Your task to perform on an android device: snooze an email in the gmail app Image 0: 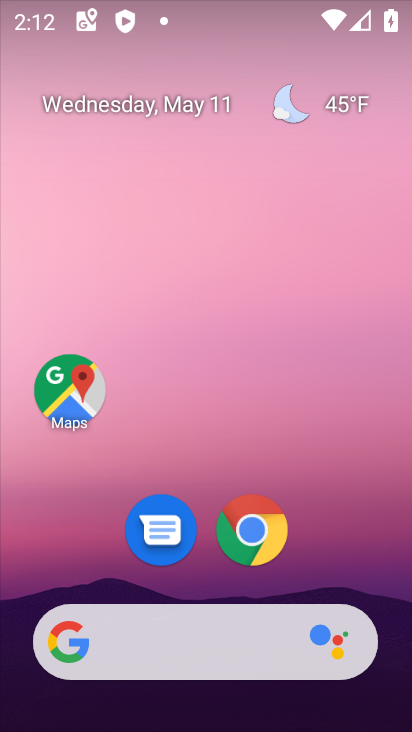
Step 0: drag from (270, 700) to (243, 146)
Your task to perform on an android device: snooze an email in the gmail app Image 1: 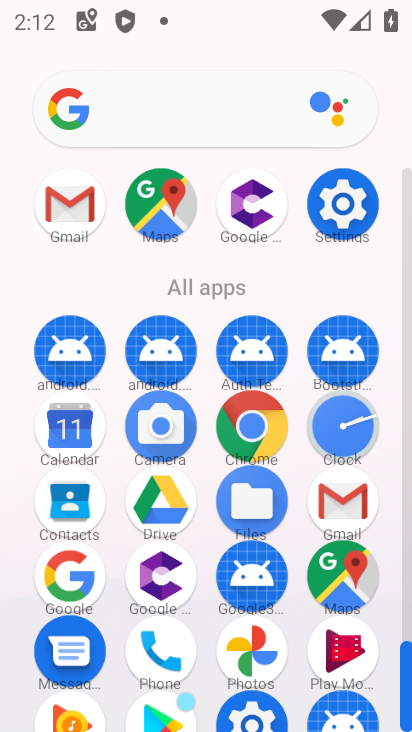
Step 1: click (341, 499)
Your task to perform on an android device: snooze an email in the gmail app Image 2: 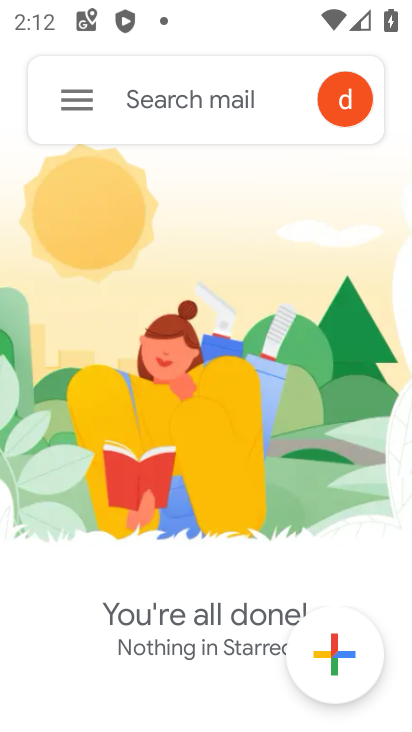
Step 2: click (66, 110)
Your task to perform on an android device: snooze an email in the gmail app Image 3: 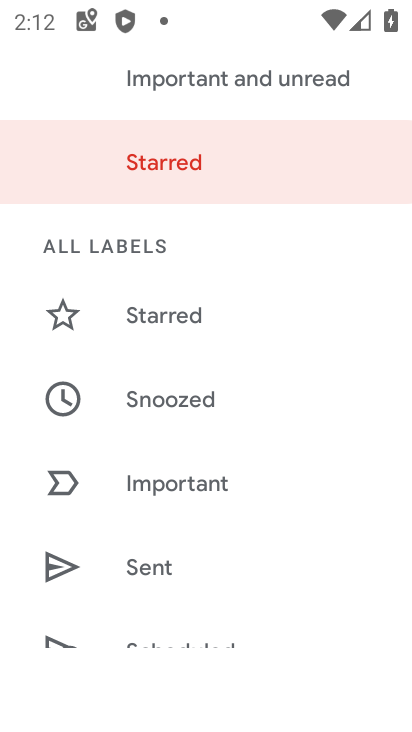
Step 3: drag from (206, 534) to (205, 133)
Your task to perform on an android device: snooze an email in the gmail app Image 4: 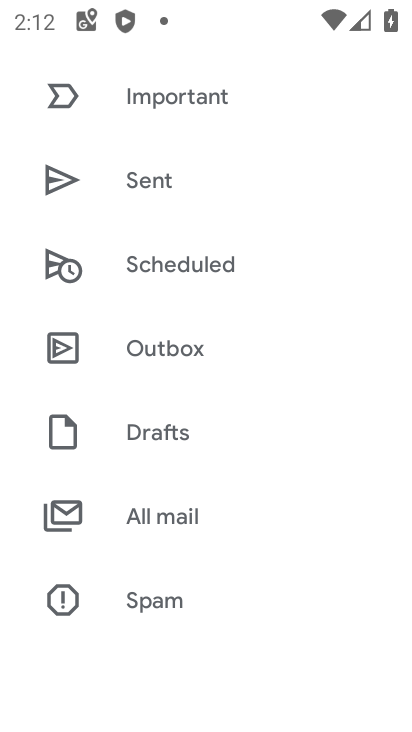
Step 4: drag from (253, 320) to (277, 16)
Your task to perform on an android device: snooze an email in the gmail app Image 5: 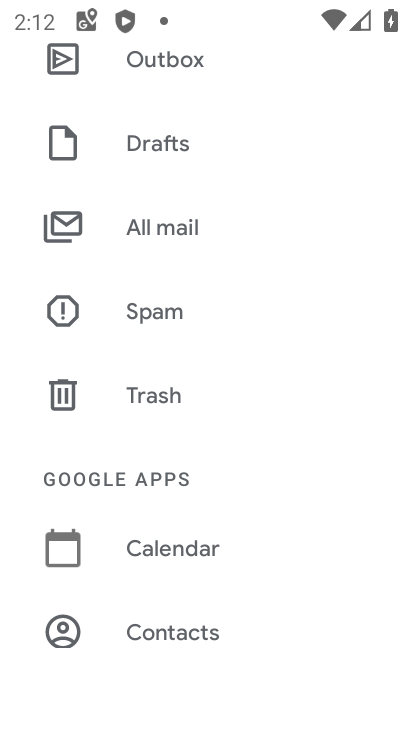
Step 5: click (152, 231)
Your task to perform on an android device: snooze an email in the gmail app Image 6: 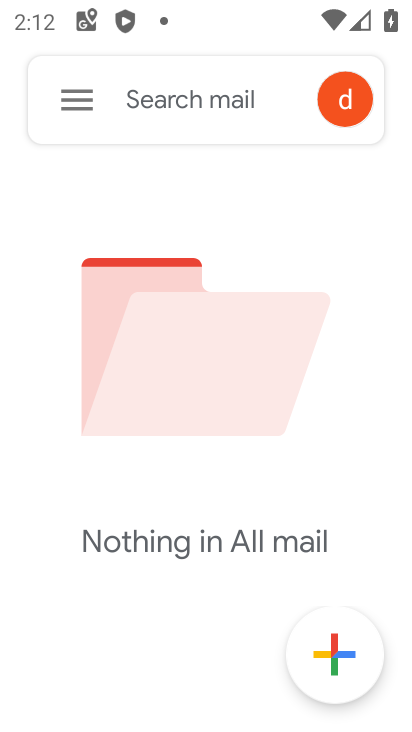
Step 6: task complete